Your task to perform on an android device: turn on showing notifications on the lock screen Image 0: 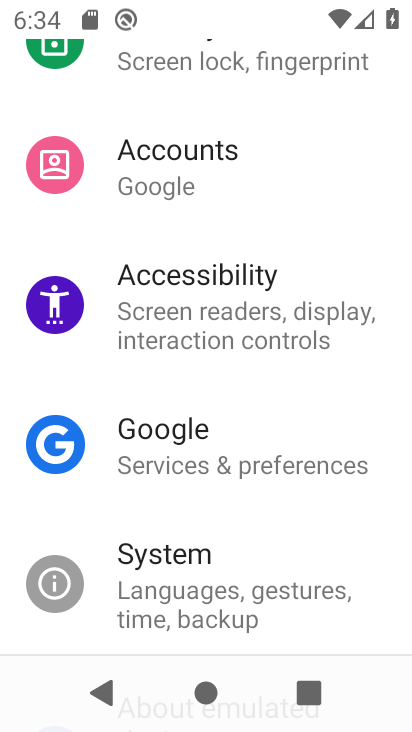
Step 0: press home button
Your task to perform on an android device: turn on showing notifications on the lock screen Image 1: 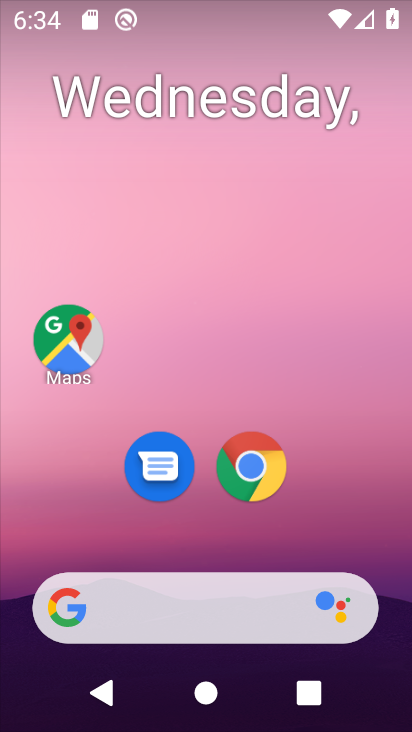
Step 1: drag from (314, 519) to (206, 68)
Your task to perform on an android device: turn on showing notifications on the lock screen Image 2: 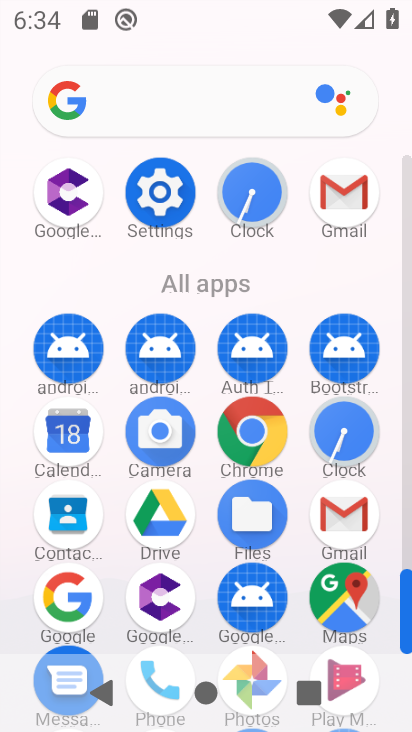
Step 2: click (160, 185)
Your task to perform on an android device: turn on showing notifications on the lock screen Image 3: 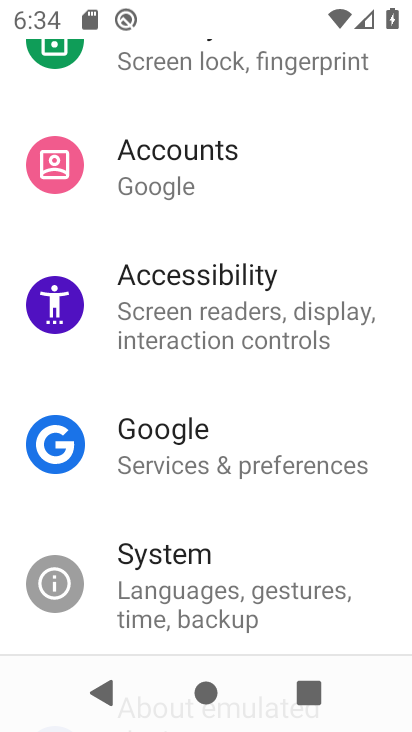
Step 3: drag from (246, 105) to (309, 676)
Your task to perform on an android device: turn on showing notifications on the lock screen Image 4: 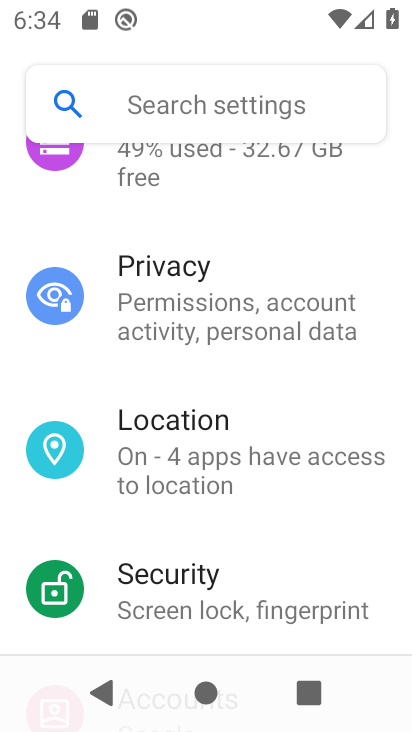
Step 4: click (216, 276)
Your task to perform on an android device: turn on showing notifications on the lock screen Image 5: 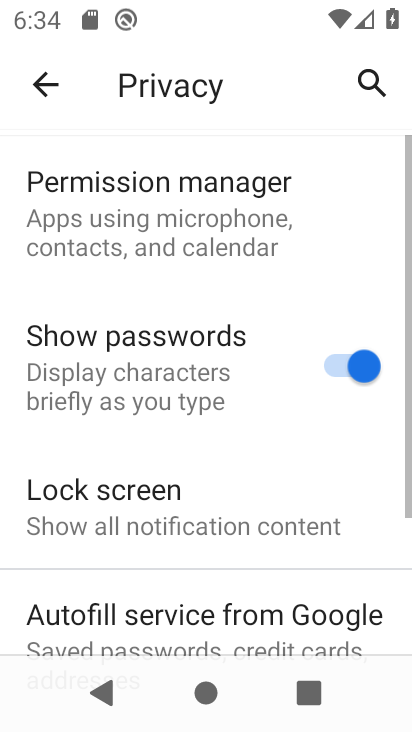
Step 5: drag from (214, 221) to (158, 725)
Your task to perform on an android device: turn on showing notifications on the lock screen Image 6: 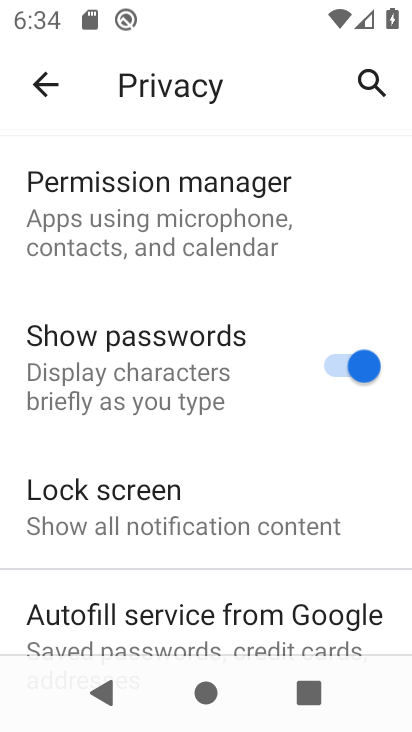
Step 6: click (44, 66)
Your task to perform on an android device: turn on showing notifications on the lock screen Image 7: 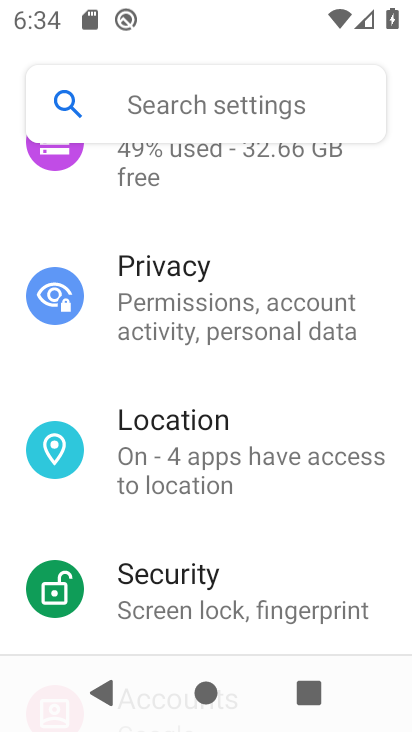
Step 7: click (44, 66)
Your task to perform on an android device: turn on showing notifications on the lock screen Image 8: 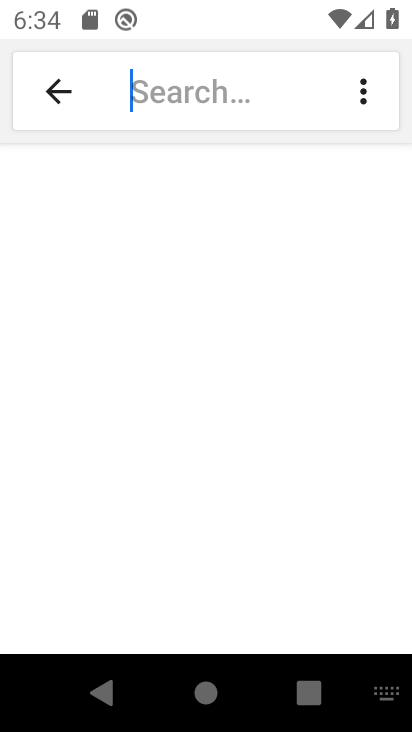
Step 8: click (57, 84)
Your task to perform on an android device: turn on showing notifications on the lock screen Image 9: 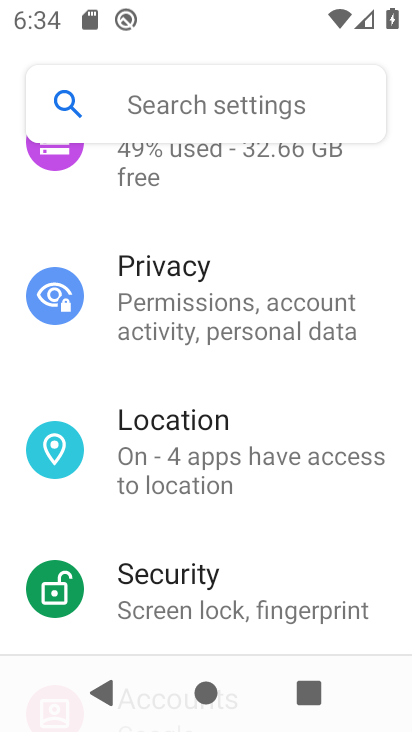
Step 9: drag from (188, 208) to (263, 626)
Your task to perform on an android device: turn on showing notifications on the lock screen Image 10: 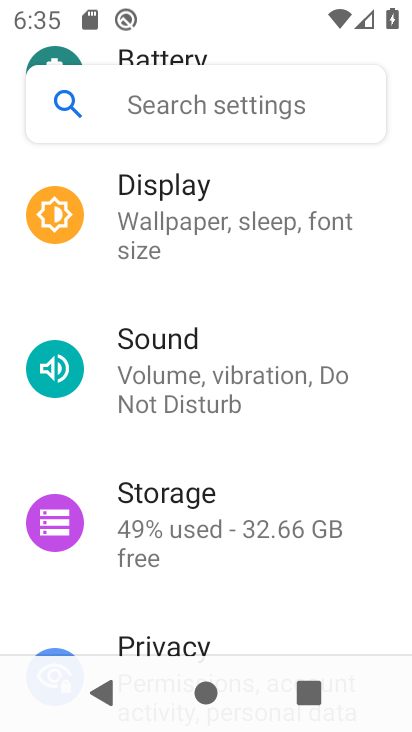
Step 10: drag from (220, 291) to (167, 680)
Your task to perform on an android device: turn on showing notifications on the lock screen Image 11: 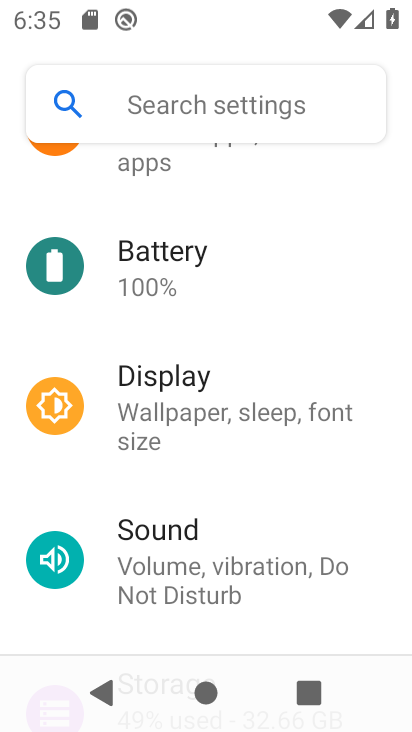
Step 11: drag from (170, 208) to (169, 529)
Your task to perform on an android device: turn on showing notifications on the lock screen Image 12: 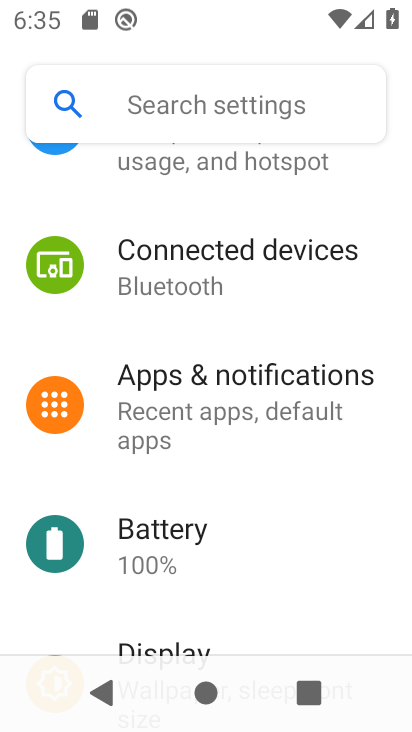
Step 12: click (222, 368)
Your task to perform on an android device: turn on showing notifications on the lock screen Image 13: 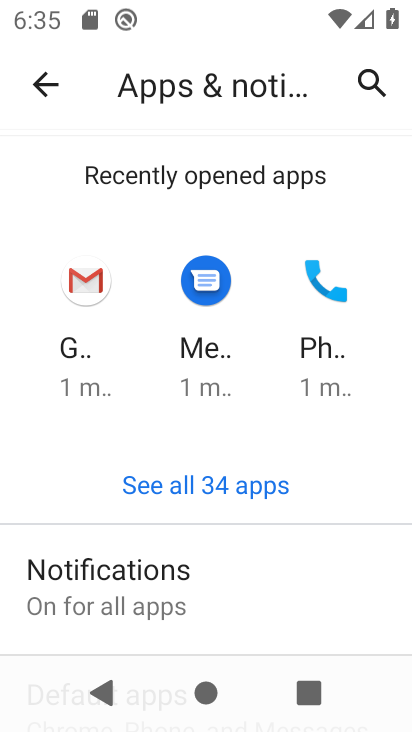
Step 13: click (110, 561)
Your task to perform on an android device: turn on showing notifications on the lock screen Image 14: 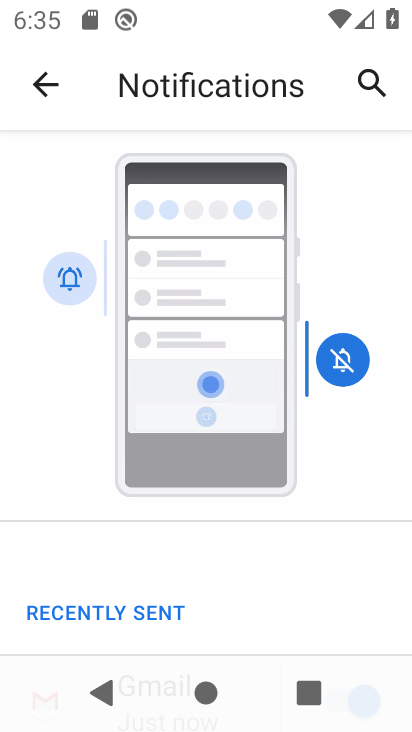
Step 14: drag from (319, 584) to (285, 187)
Your task to perform on an android device: turn on showing notifications on the lock screen Image 15: 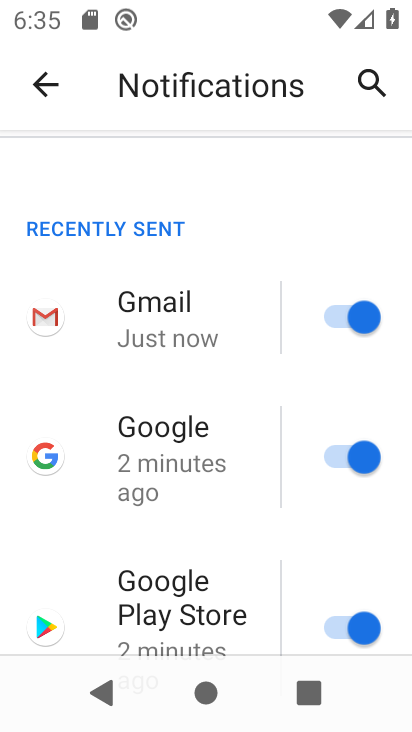
Step 15: drag from (256, 503) to (234, 70)
Your task to perform on an android device: turn on showing notifications on the lock screen Image 16: 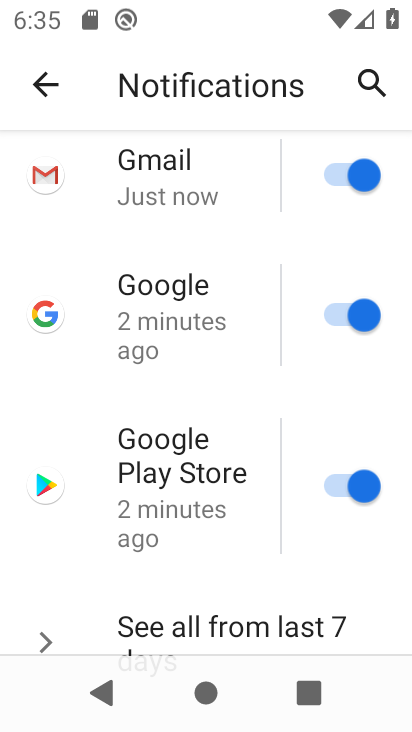
Step 16: drag from (300, 556) to (281, 185)
Your task to perform on an android device: turn on showing notifications on the lock screen Image 17: 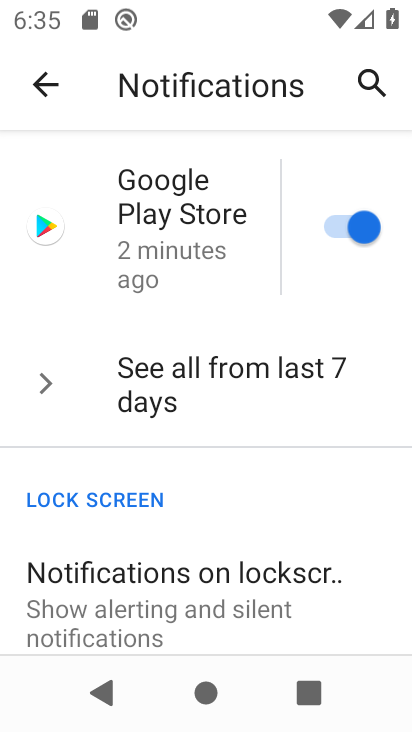
Step 17: click (195, 575)
Your task to perform on an android device: turn on showing notifications on the lock screen Image 18: 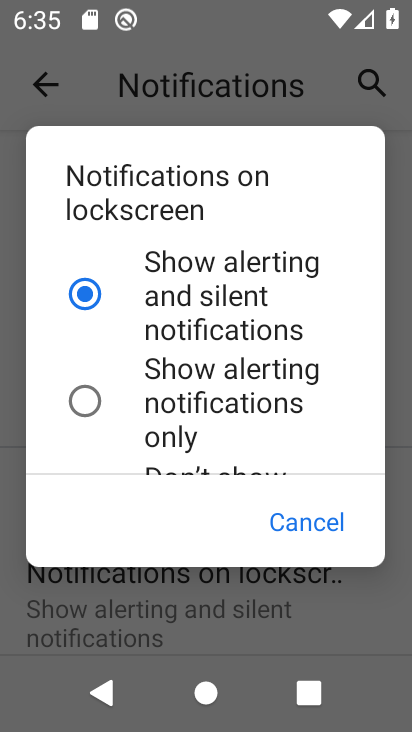
Step 18: task complete